Your task to perform on an android device: empty trash in google photos Image 0: 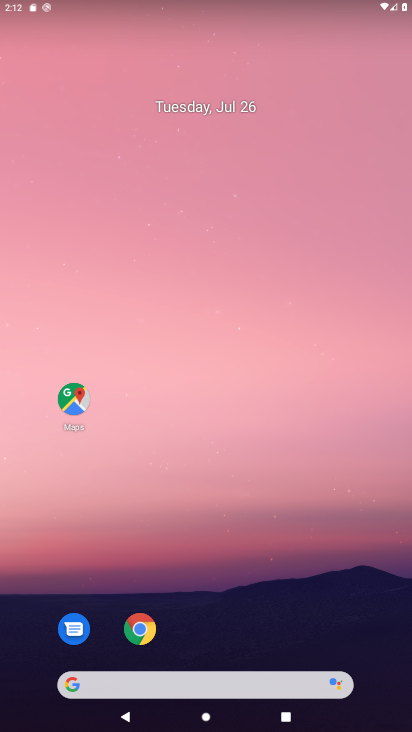
Step 0: drag from (174, 665) to (177, 98)
Your task to perform on an android device: empty trash in google photos Image 1: 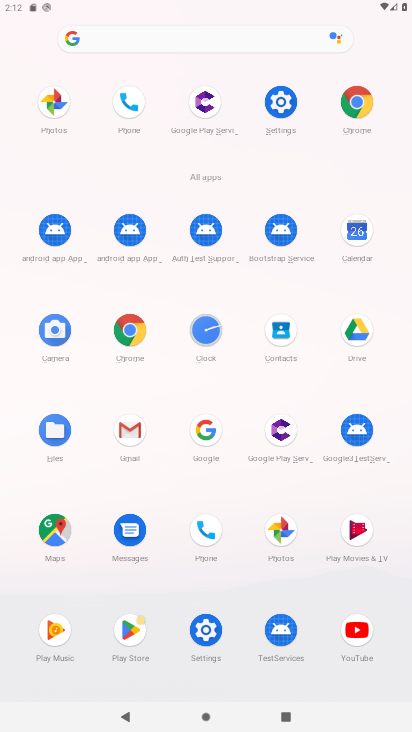
Step 1: click (276, 544)
Your task to perform on an android device: empty trash in google photos Image 2: 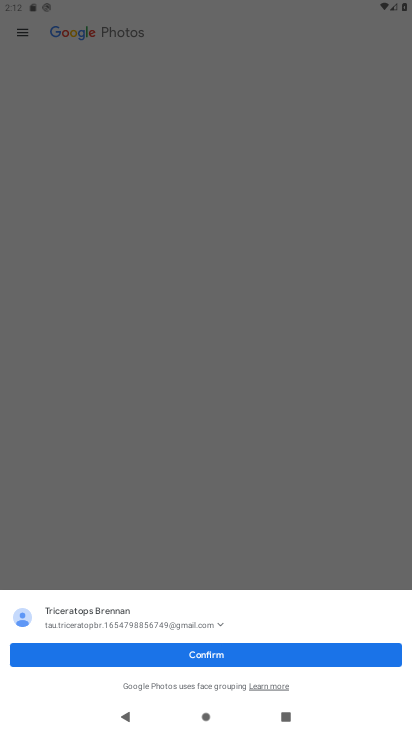
Step 2: drag from (21, 33) to (62, 533)
Your task to perform on an android device: empty trash in google photos Image 3: 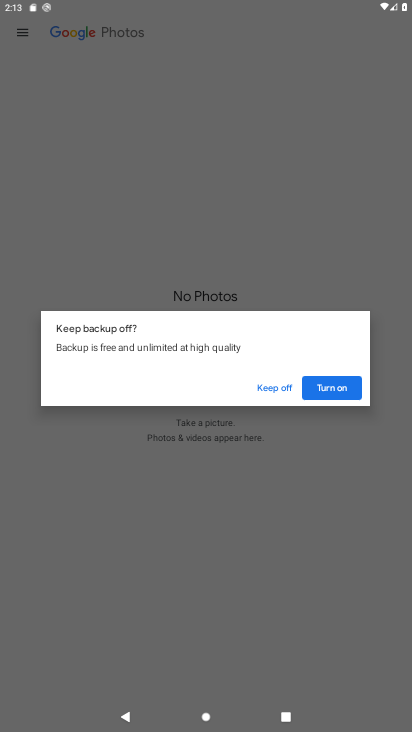
Step 3: click (126, 659)
Your task to perform on an android device: empty trash in google photos Image 4: 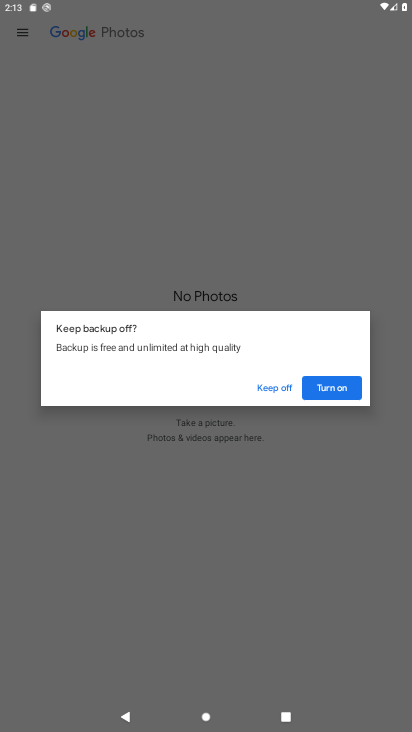
Step 4: click (324, 388)
Your task to perform on an android device: empty trash in google photos Image 5: 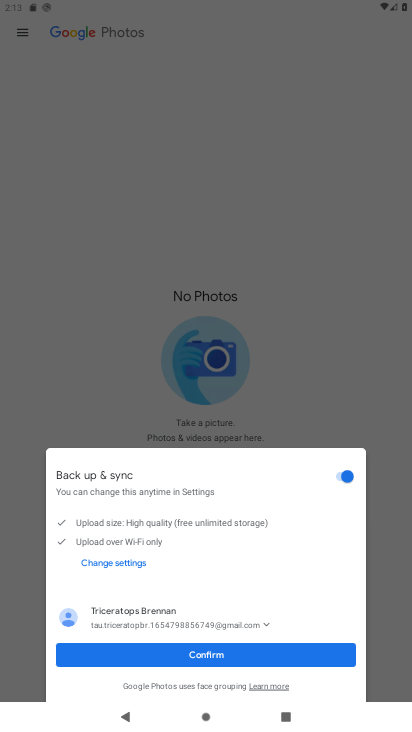
Step 5: click (236, 657)
Your task to perform on an android device: empty trash in google photos Image 6: 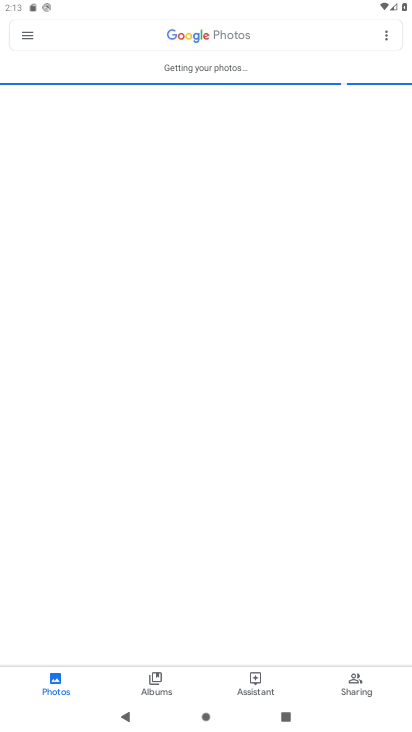
Step 6: drag from (29, 40) to (72, 369)
Your task to perform on an android device: empty trash in google photos Image 7: 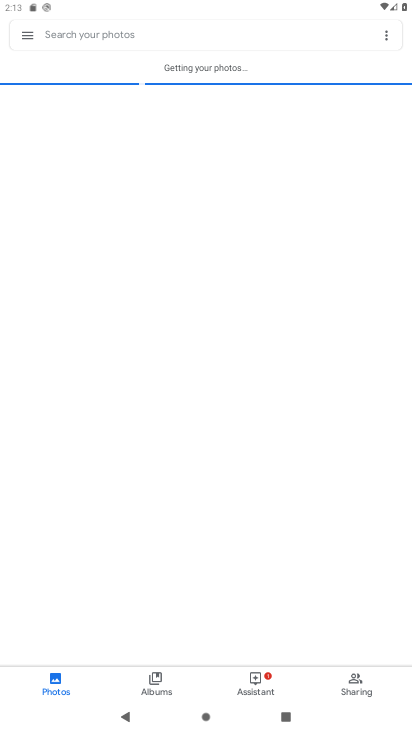
Step 7: drag from (26, 38) to (55, 208)
Your task to perform on an android device: empty trash in google photos Image 8: 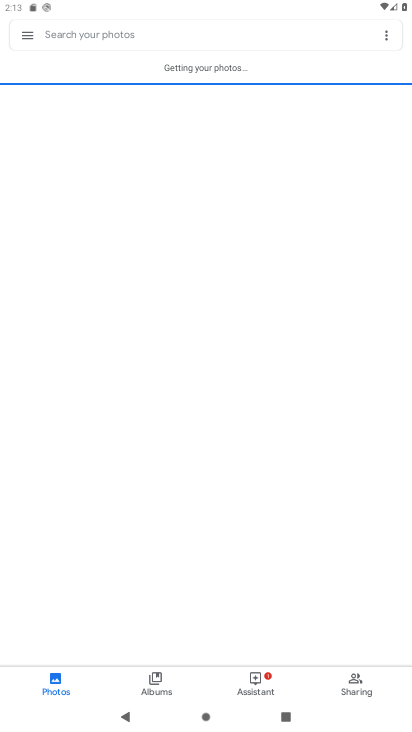
Step 8: drag from (27, 30) to (32, 106)
Your task to perform on an android device: empty trash in google photos Image 9: 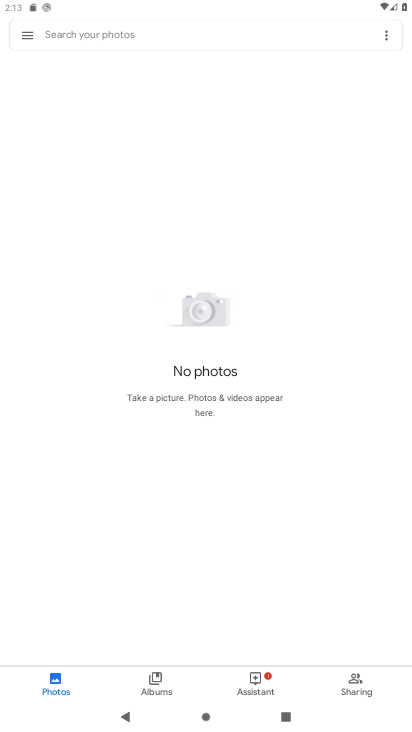
Step 9: drag from (30, 26) to (38, 140)
Your task to perform on an android device: empty trash in google photos Image 10: 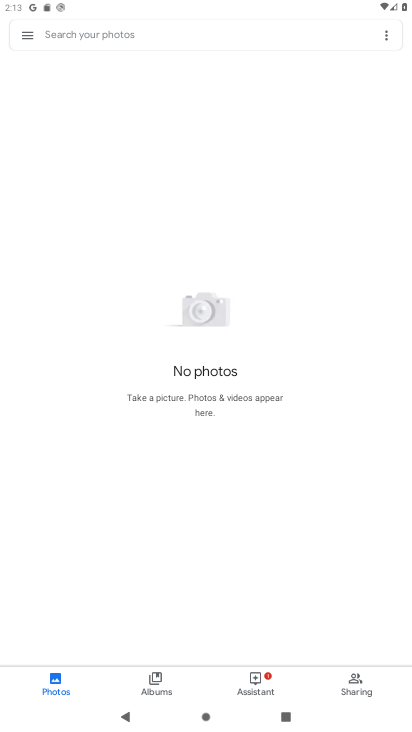
Step 10: click (28, 26)
Your task to perform on an android device: empty trash in google photos Image 11: 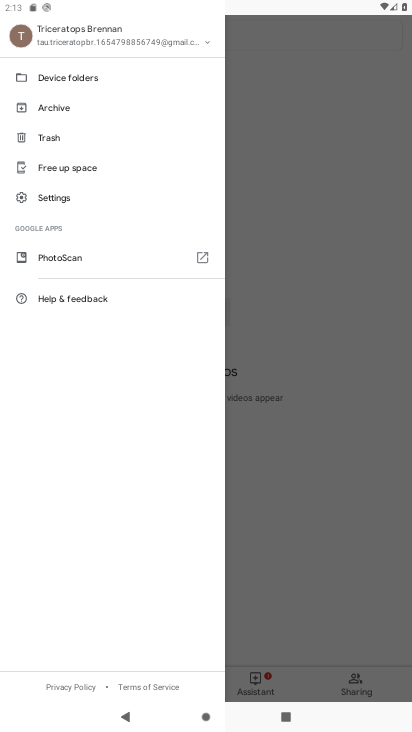
Step 11: click (52, 142)
Your task to perform on an android device: empty trash in google photos Image 12: 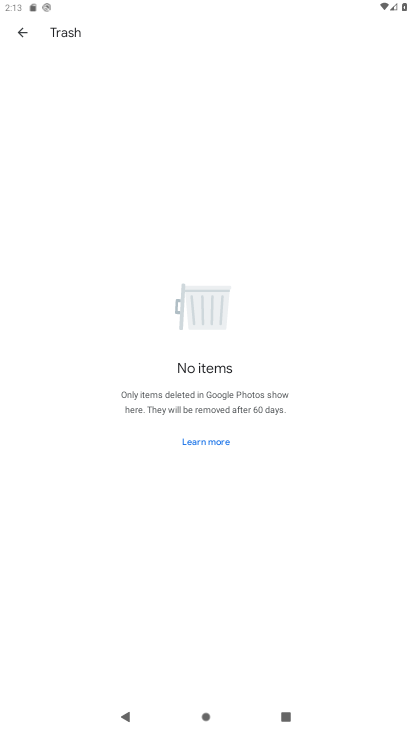
Step 12: task complete